Your task to perform on an android device: change the upload size in google photos Image 0: 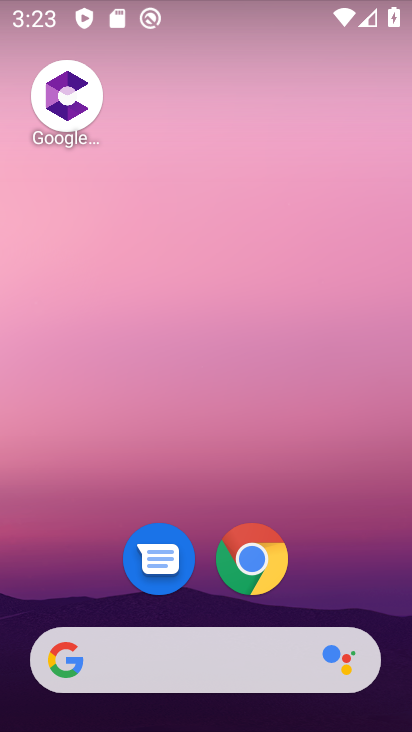
Step 0: drag from (299, 573) to (298, 143)
Your task to perform on an android device: change the upload size in google photos Image 1: 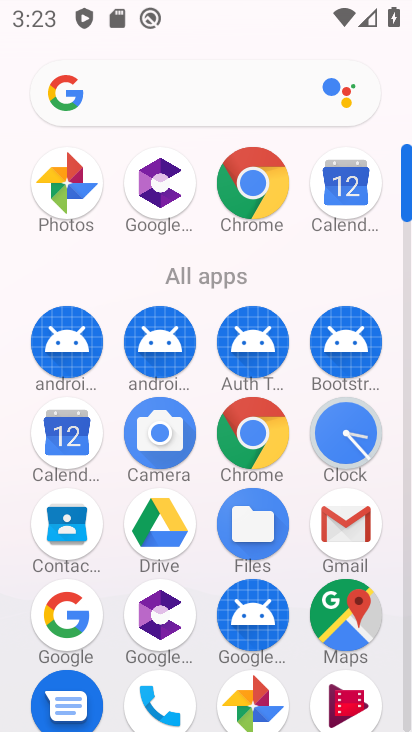
Step 1: drag from (204, 666) to (223, 277)
Your task to perform on an android device: change the upload size in google photos Image 2: 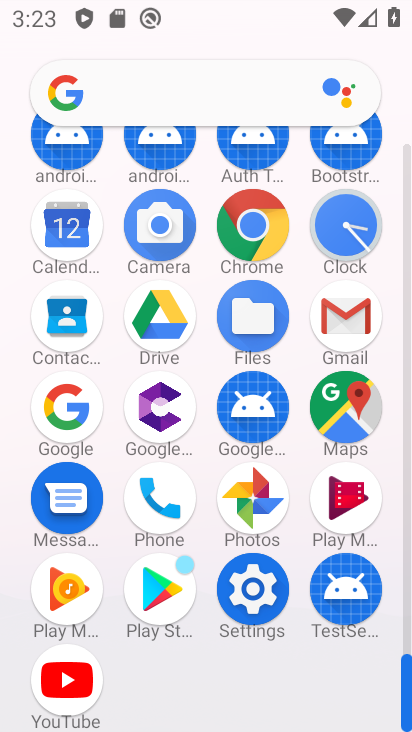
Step 2: click (247, 515)
Your task to perform on an android device: change the upload size in google photos Image 3: 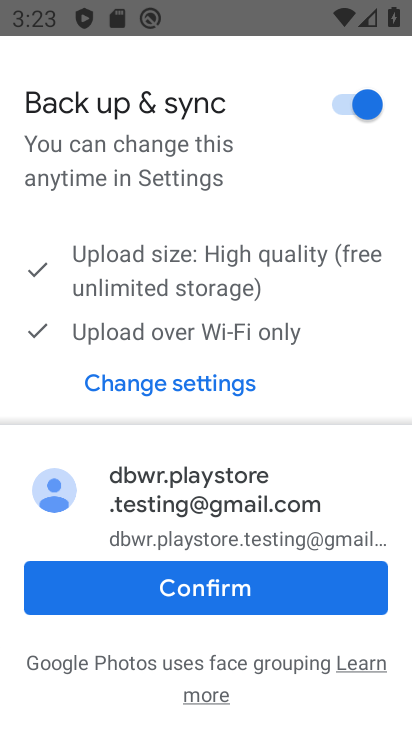
Step 3: click (248, 579)
Your task to perform on an android device: change the upload size in google photos Image 4: 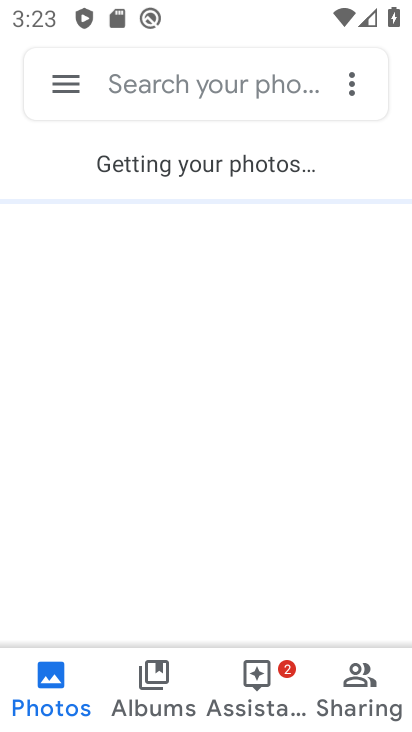
Step 4: click (62, 80)
Your task to perform on an android device: change the upload size in google photos Image 5: 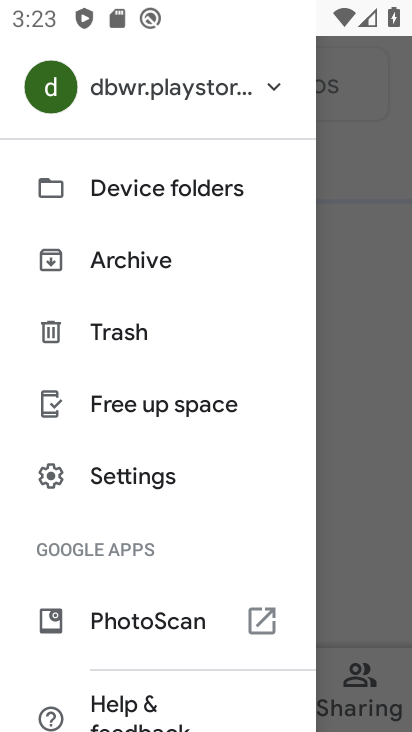
Step 5: click (174, 485)
Your task to perform on an android device: change the upload size in google photos Image 6: 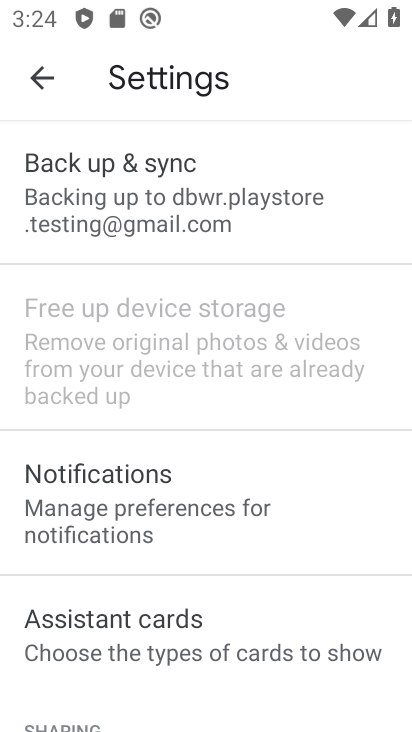
Step 6: click (186, 209)
Your task to perform on an android device: change the upload size in google photos Image 7: 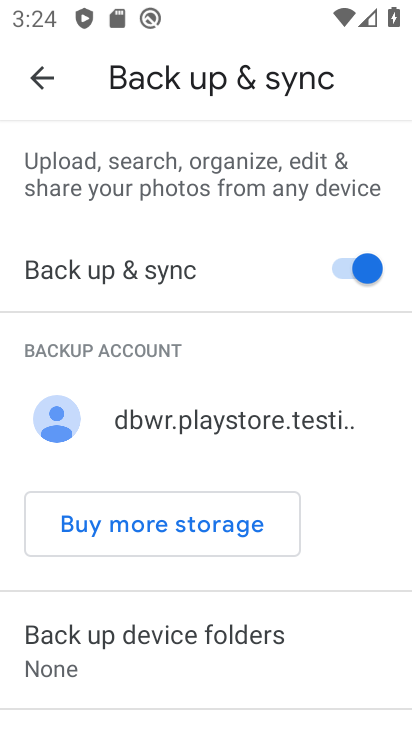
Step 7: drag from (194, 660) to (190, 369)
Your task to perform on an android device: change the upload size in google photos Image 8: 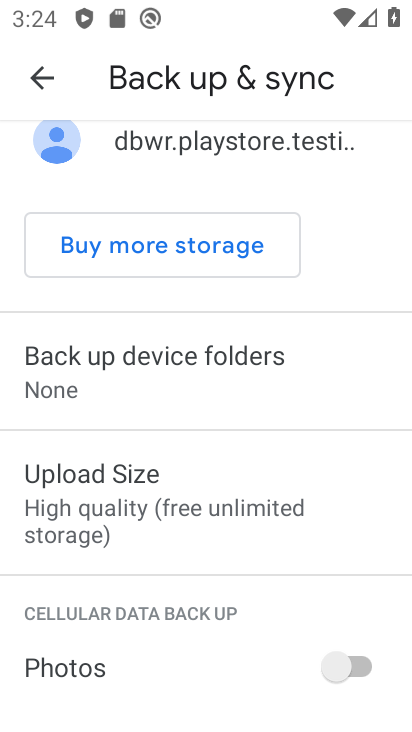
Step 8: click (205, 528)
Your task to perform on an android device: change the upload size in google photos Image 9: 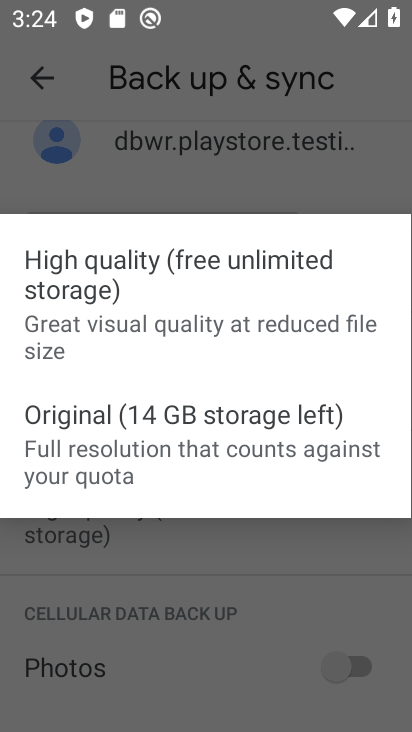
Step 9: click (179, 462)
Your task to perform on an android device: change the upload size in google photos Image 10: 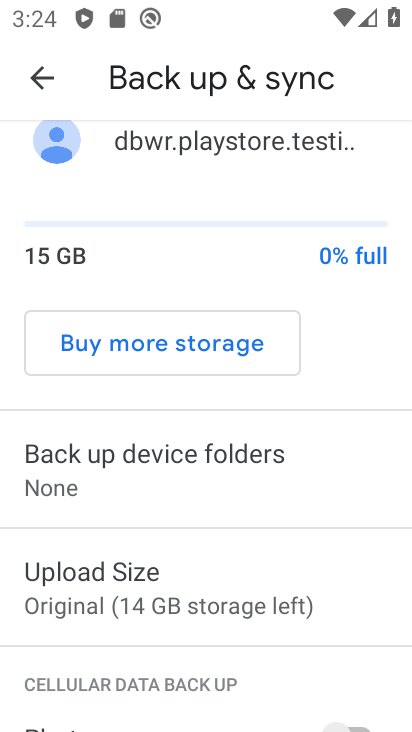
Step 10: task complete